Your task to perform on an android device: toggle javascript in the chrome app Image 0: 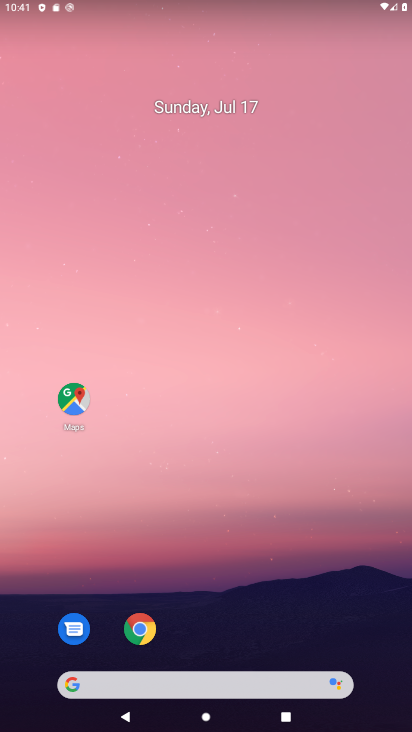
Step 0: click (139, 624)
Your task to perform on an android device: toggle javascript in the chrome app Image 1: 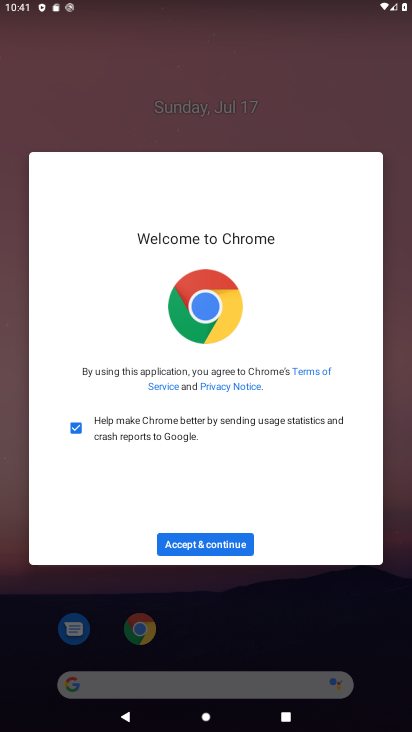
Step 1: click (223, 543)
Your task to perform on an android device: toggle javascript in the chrome app Image 2: 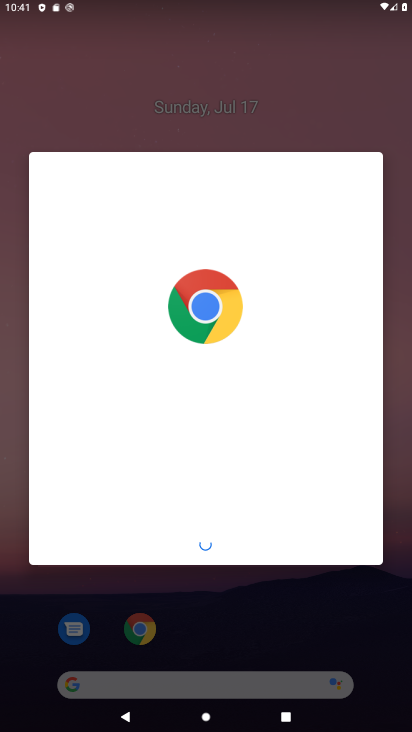
Step 2: click (223, 543)
Your task to perform on an android device: toggle javascript in the chrome app Image 3: 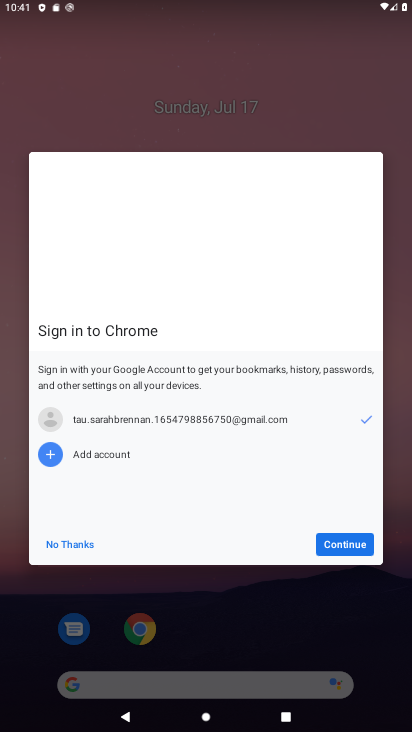
Step 3: click (346, 547)
Your task to perform on an android device: toggle javascript in the chrome app Image 4: 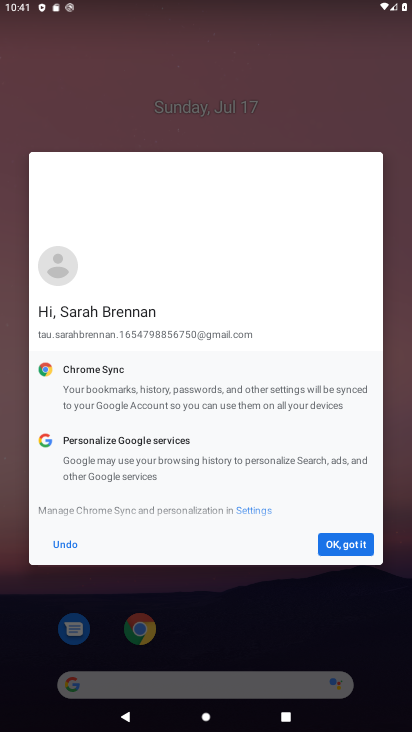
Step 4: click (346, 547)
Your task to perform on an android device: toggle javascript in the chrome app Image 5: 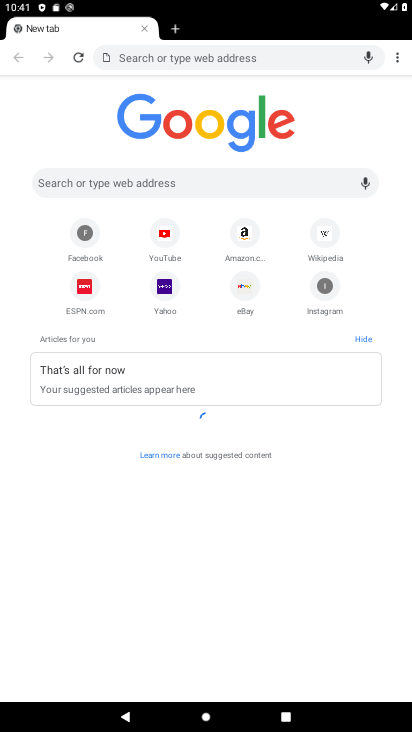
Step 5: click (400, 54)
Your task to perform on an android device: toggle javascript in the chrome app Image 6: 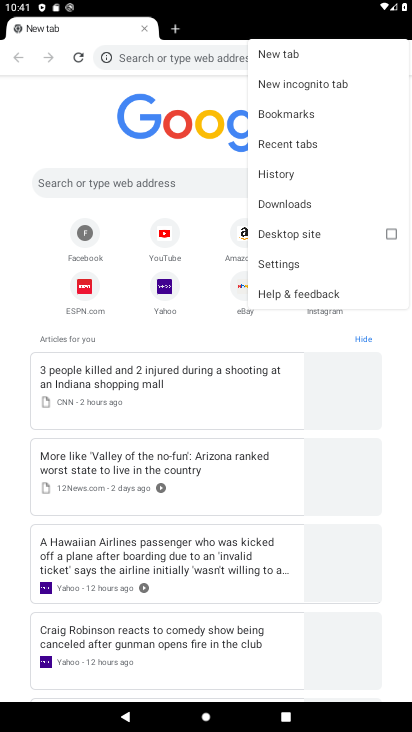
Step 6: click (297, 262)
Your task to perform on an android device: toggle javascript in the chrome app Image 7: 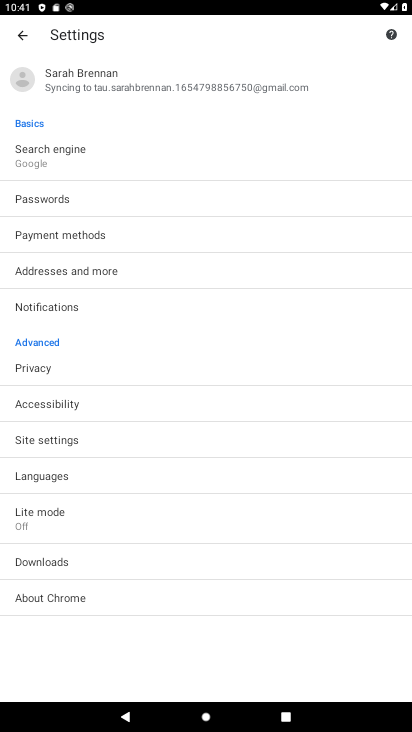
Step 7: click (109, 441)
Your task to perform on an android device: toggle javascript in the chrome app Image 8: 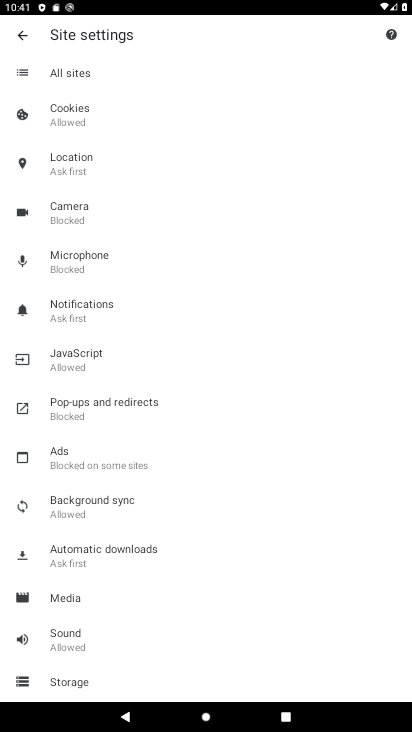
Step 8: click (99, 356)
Your task to perform on an android device: toggle javascript in the chrome app Image 9: 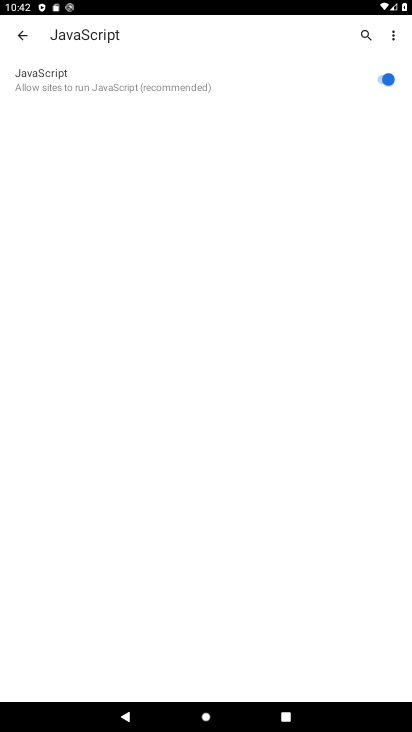
Step 9: click (380, 76)
Your task to perform on an android device: toggle javascript in the chrome app Image 10: 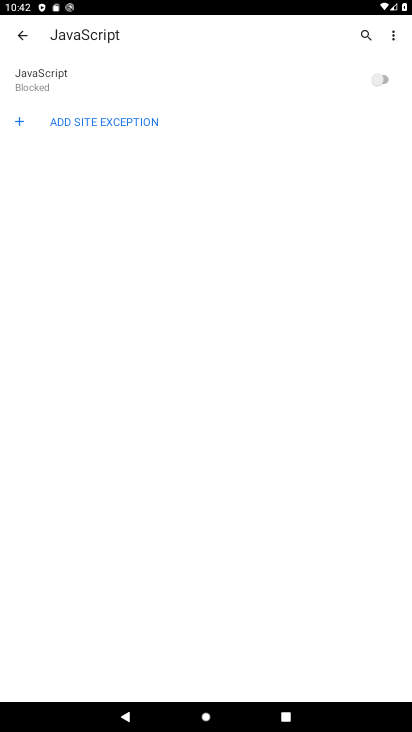
Step 10: task complete